Your task to perform on an android device: Go to settings Image 0: 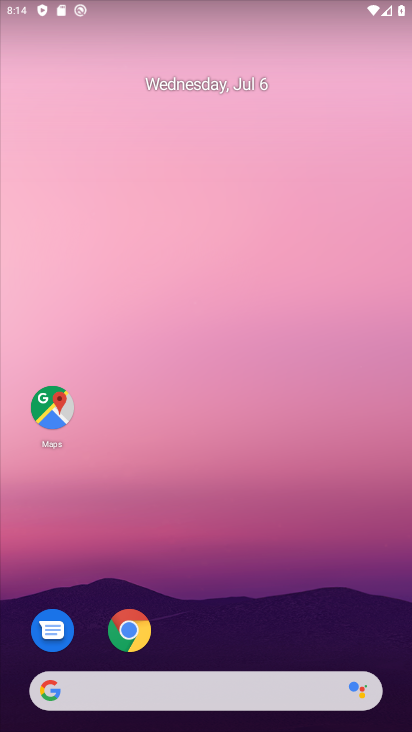
Step 0: drag from (385, 636) to (244, 34)
Your task to perform on an android device: Go to settings Image 1: 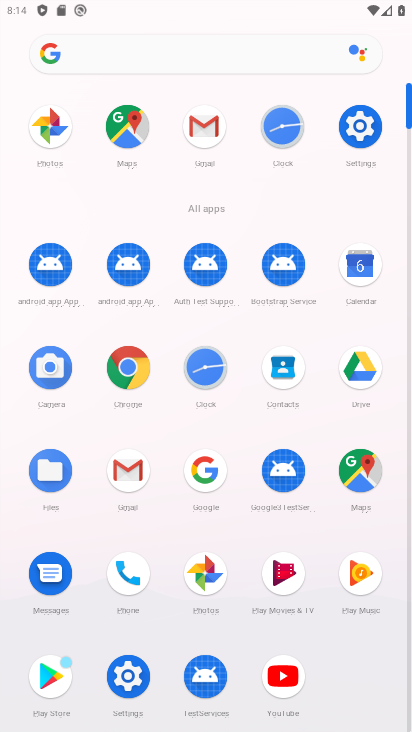
Step 1: click (356, 121)
Your task to perform on an android device: Go to settings Image 2: 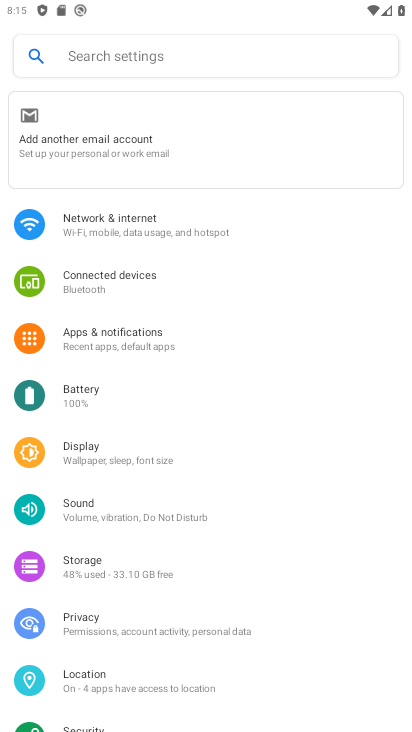
Step 2: task complete